Your task to perform on an android device: Go to notification settings Image 0: 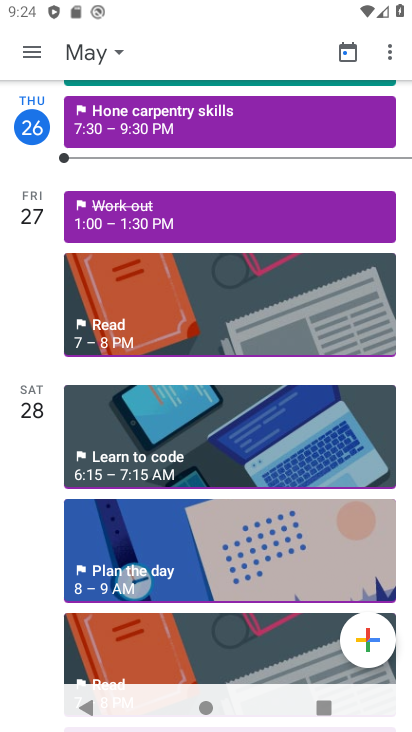
Step 0: press home button
Your task to perform on an android device: Go to notification settings Image 1: 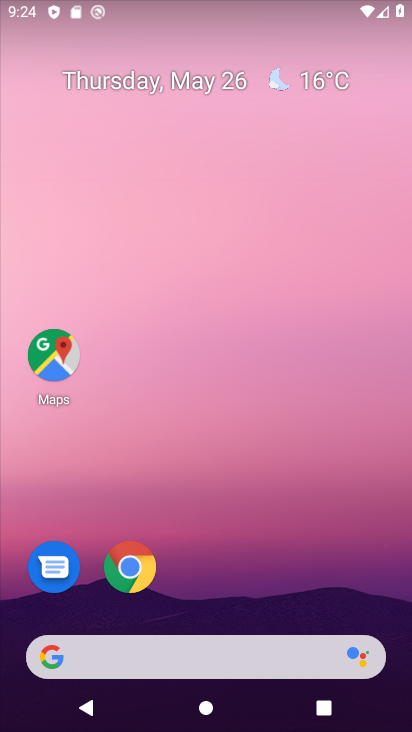
Step 1: drag from (388, 697) to (66, 23)
Your task to perform on an android device: Go to notification settings Image 2: 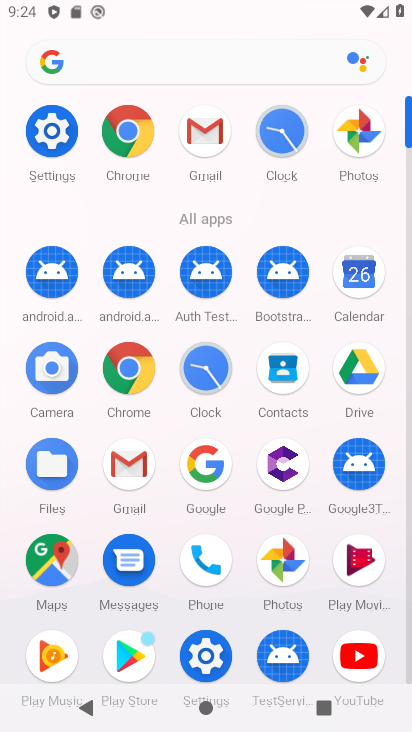
Step 2: click (53, 136)
Your task to perform on an android device: Go to notification settings Image 3: 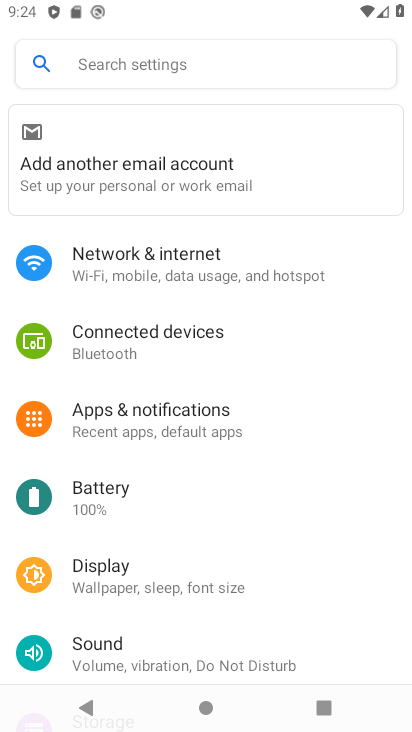
Step 3: click (169, 417)
Your task to perform on an android device: Go to notification settings Image 4: 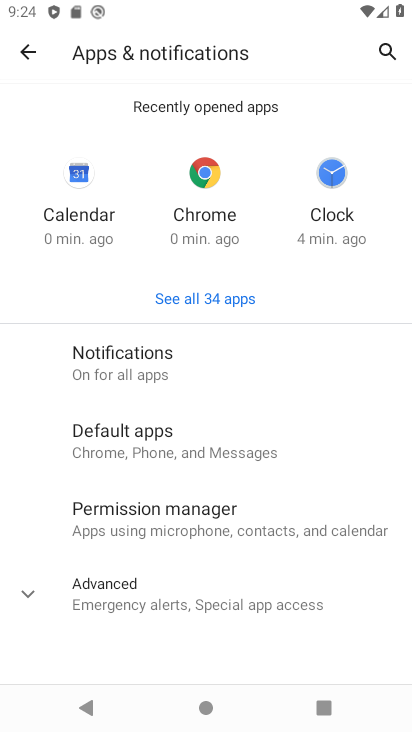
Step 4: click (111, 372)
Your task to perform on an android device: Go to notification settings Image 5: 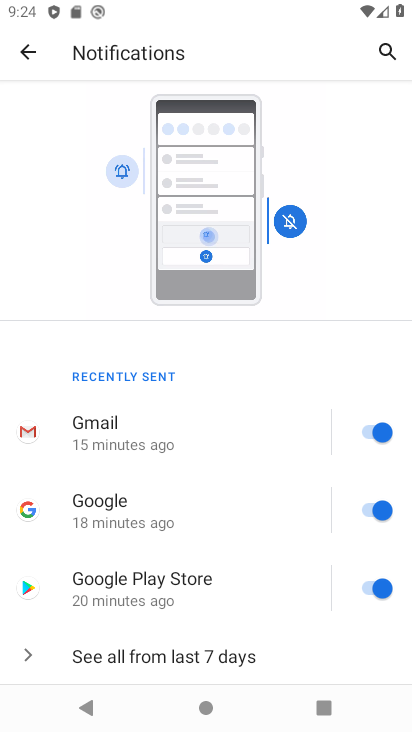
Step 5: task complete